Your task to perform on an android device: Open settings Image 0: 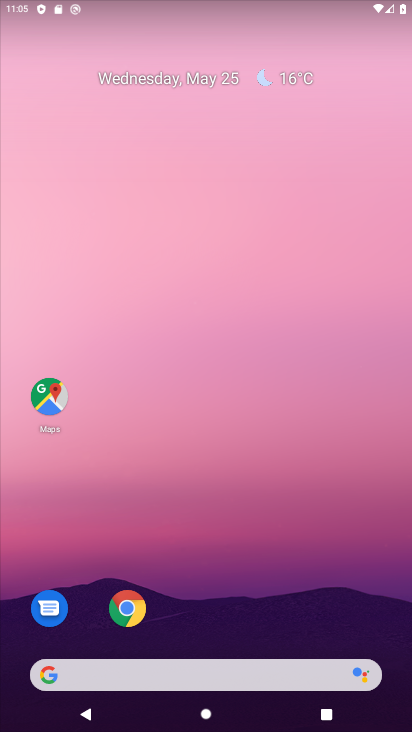
Step 0: drag from (228, 632) to (234, 158)
Your task to perform on an android device: Open settings Image 1: 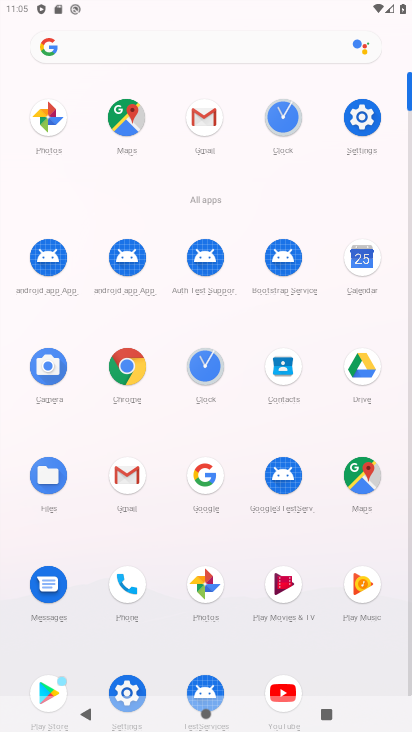
Step 1: click (374, 115)
Your task to perform on an android device: Open settings Image 2: 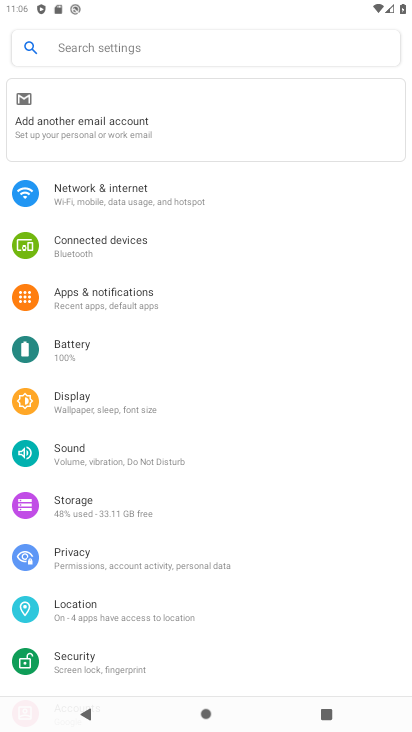
Step 2: task complete